Your task to perform on an android device: turn smart compose on in the gmail app Image 0: 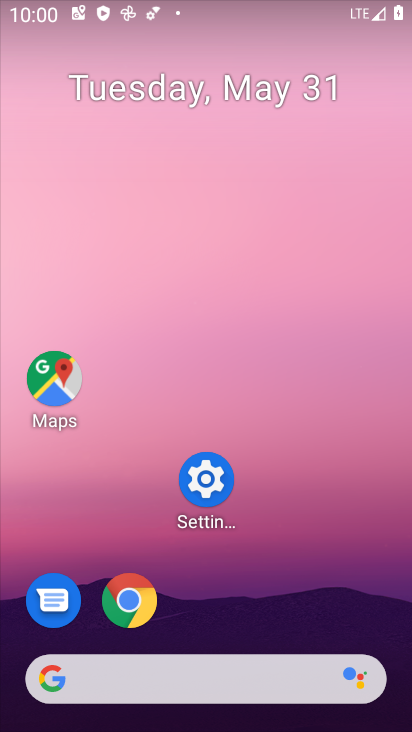
Step 0: press home button
Your task to perform on an android device: turn smart compose on in the gmail app Image 1: 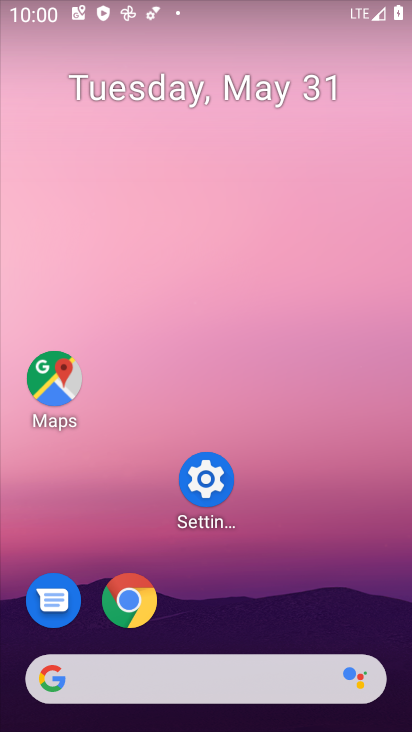
Step 1: drag from (286, 706) to (336, 318)
Your task to perform on an android device: turn smart compose on in the gmail app Image 2: 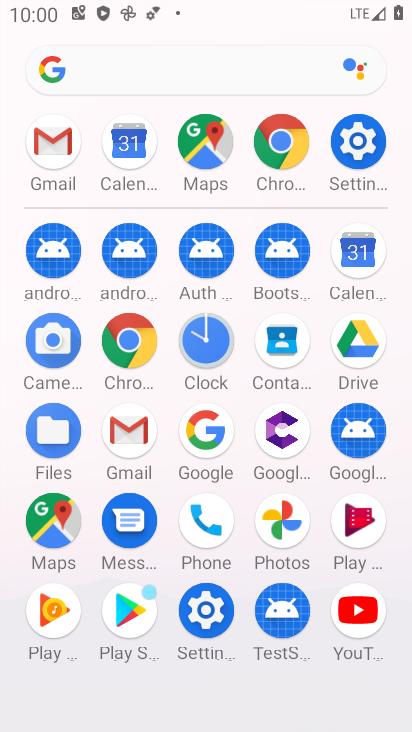
Step 2: click (50, 152)
Your task to perform on an android device: turn smart compose on in the gmail app Image 3: 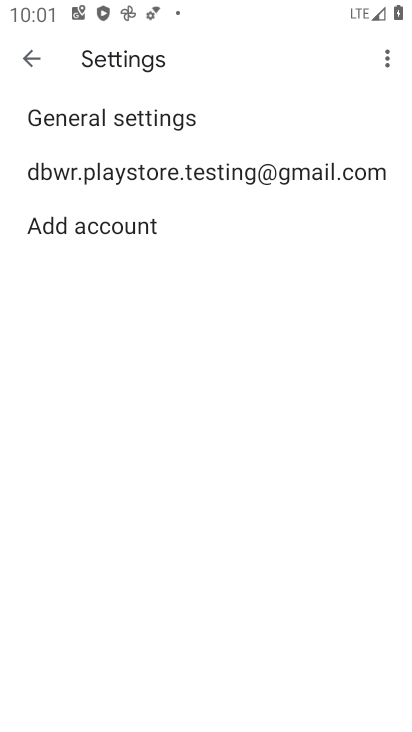
Step 3: click (145, 174)
Your task to perform on an android device: turn smart compose on in the gmail app Image 4: 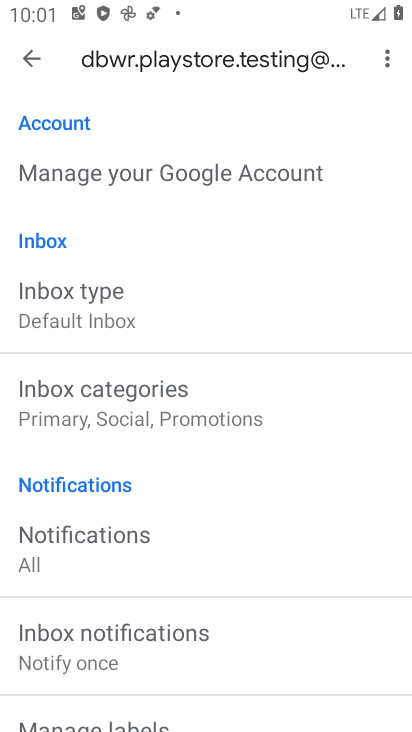
Step 4: drag from (228, 691) to (335, 65)
Your task to perform on an android device: turn smart compose on in the gmail app Image 5: 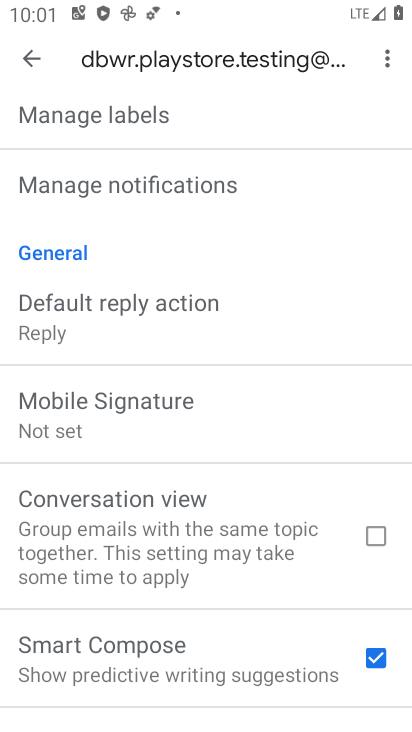
Step 5: drag from (175, 661) to (163, 547)
Your task to perform on an android device: turn smart compose on in the gmail app Image 6: 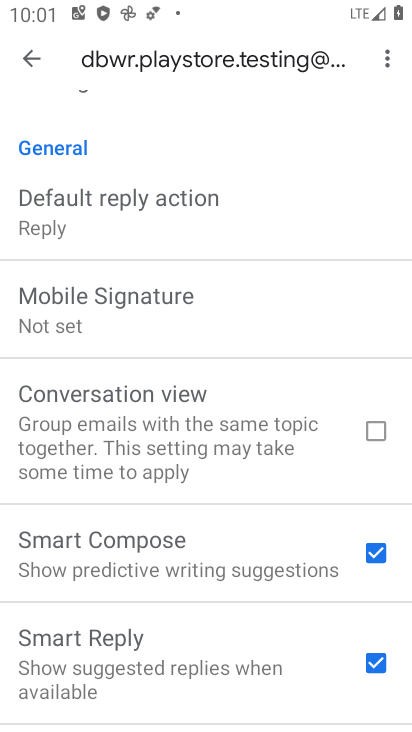
Step 6: click (368, 556)
Your task to perform on an android device: turn smart compose on in the gmail app Image 7: 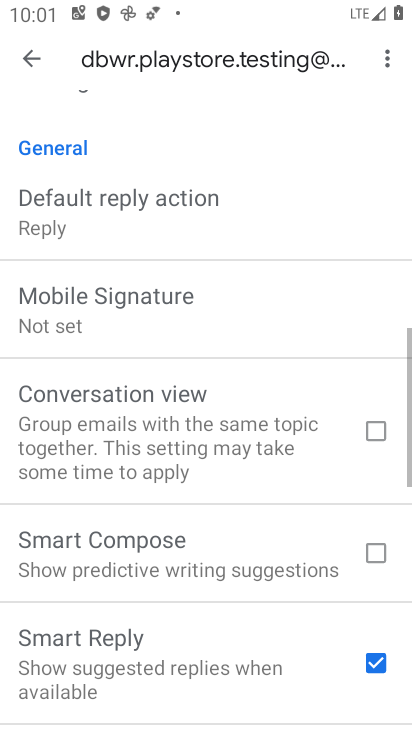
Step 7: click (369, 560)
Your task to perform on an android device: turn smart compose on in the gmail app Image 8: 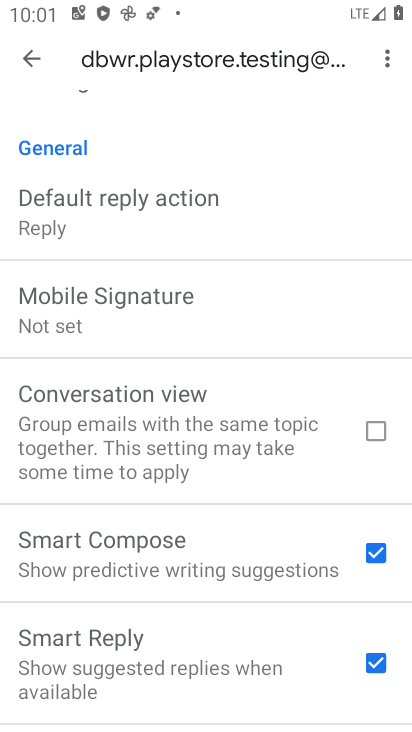
Step 8: task complete